Your task to perform on an android device: Go to Google maps Image 0: 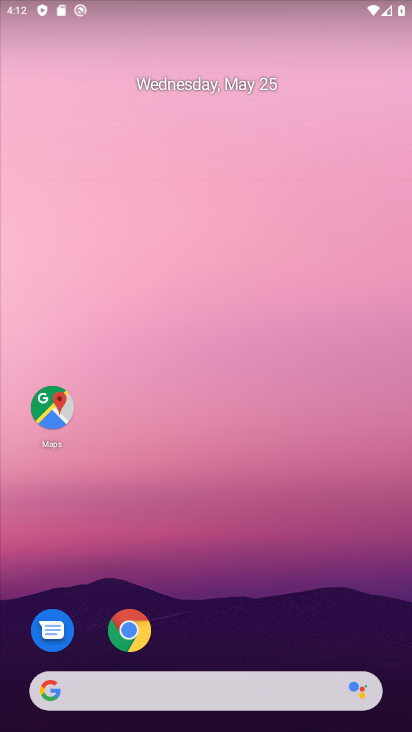
Step 0: click (53, 404)
Your task to perform on an android device: Go to Google maps Image 1: 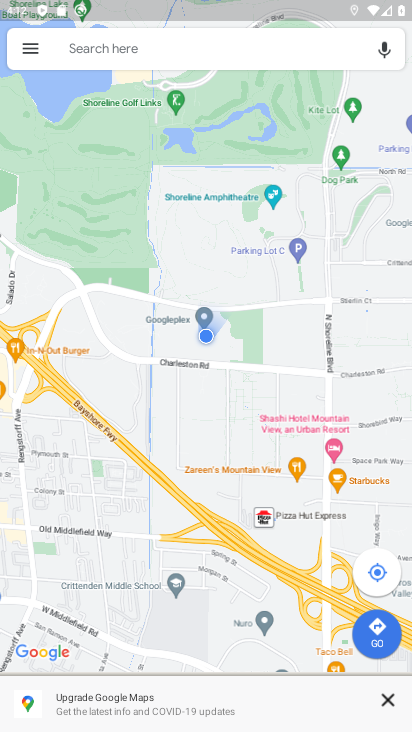
Step 1: task complete